Your task to perform on an android device: turn notification dots on Image 0: 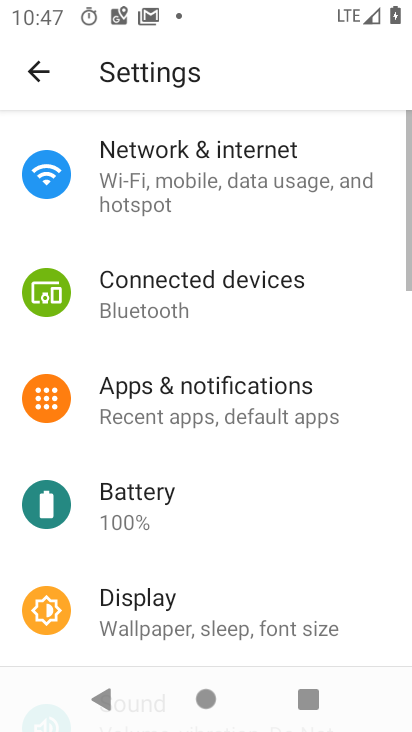
Step 0: click (220, 393)
Your task to perform on an android device: turn notification dots on Image 1: 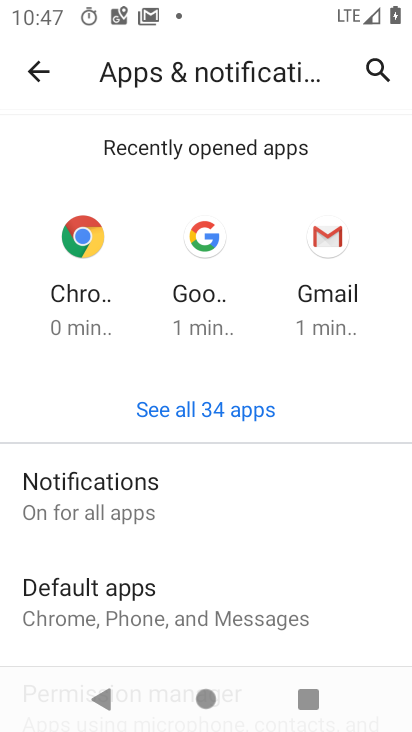
Step 1: click (96, 510)
Your task to perform on an android device: turn notification dots on Image 2: 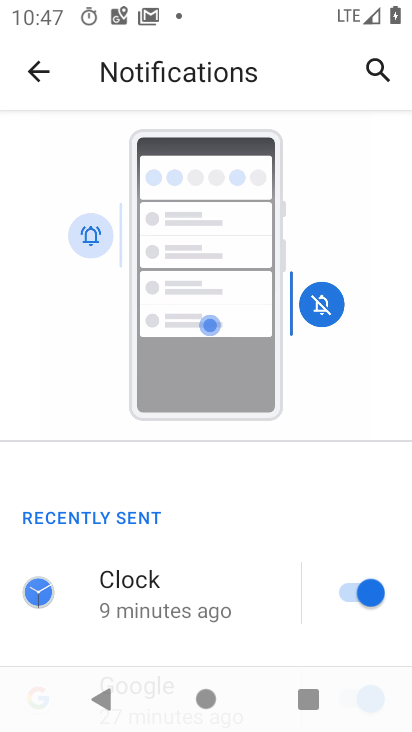
Step 2: drag from (148, 601) to (193, 189)
Your task to perform on an android device: turn notification dots on Image 3: 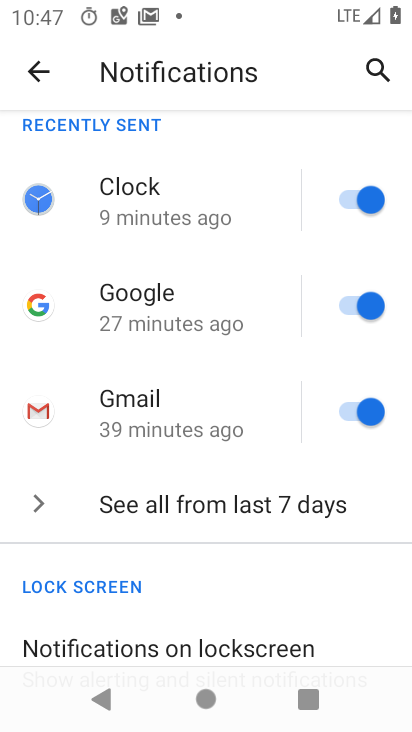
Step 3: drag from (208, 595) to (235, 219)
Your task to perform on an android device: turn notification dots on Image 4: 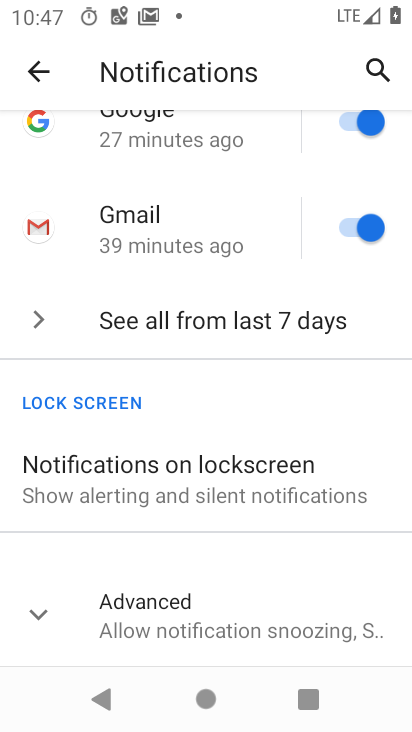
Step 4: click (34, 612)
Your task to perform on an android device: turn notification dots on Image 5: 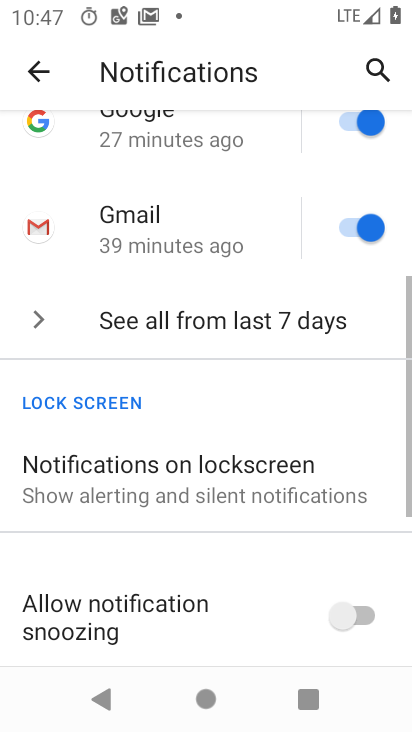
Step 5: task complete